Your task to perform on an android device: turn on priority inbox in the gmail app Image 0: 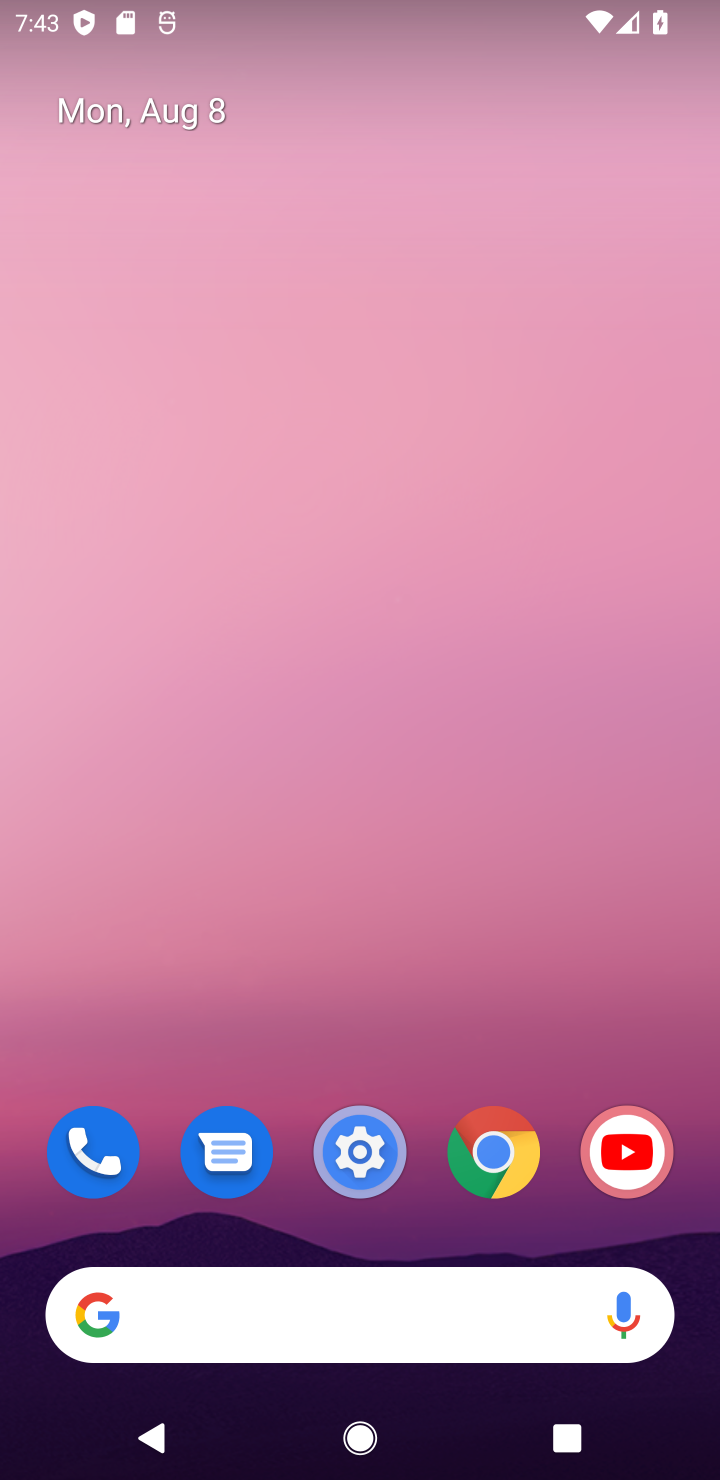
Step 0: drag from (328, 199) to (312, 63)
Your task to perform on an android device: turn on priority inbox in the gmail app Image 1: 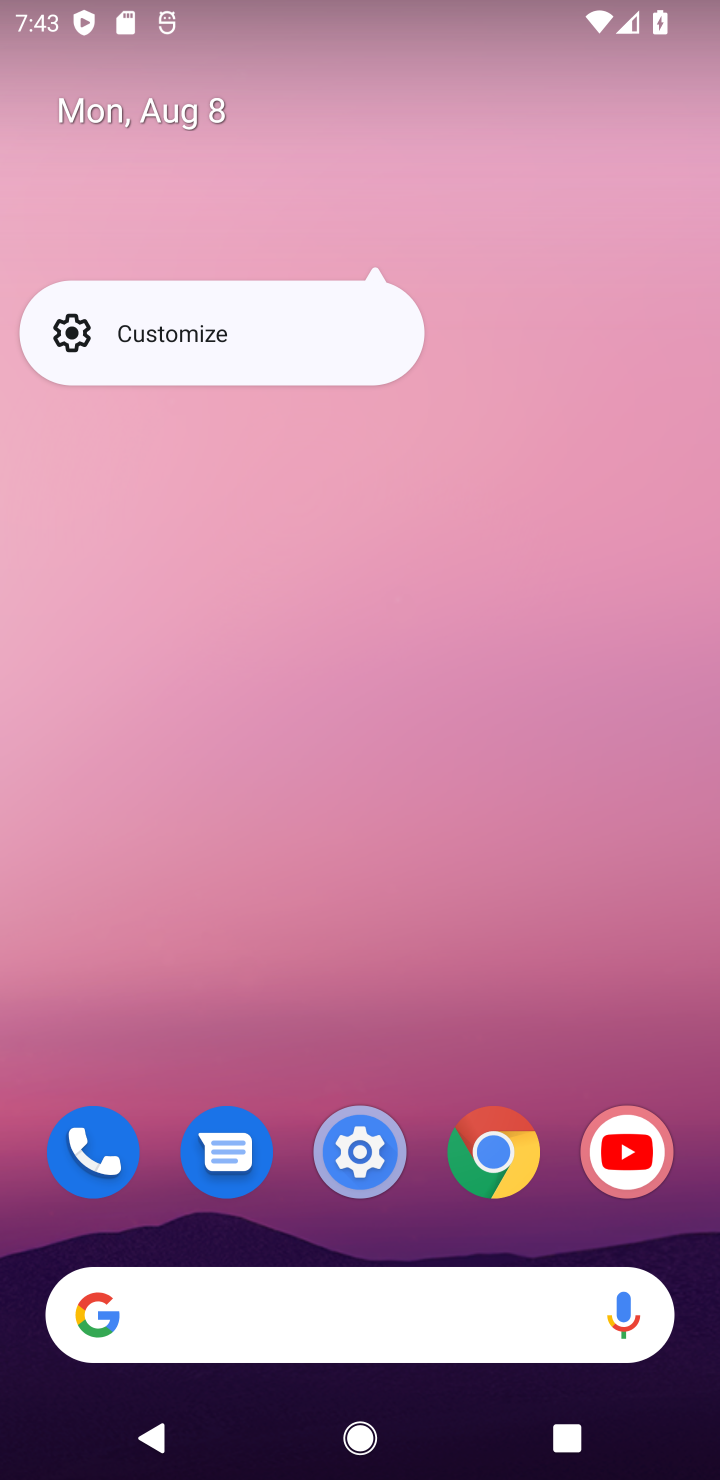
Step 1: drag from (415, 934) to (386, 316)
Your task to perform on an android device: turn on priority inbox in the gmail app Image 2: 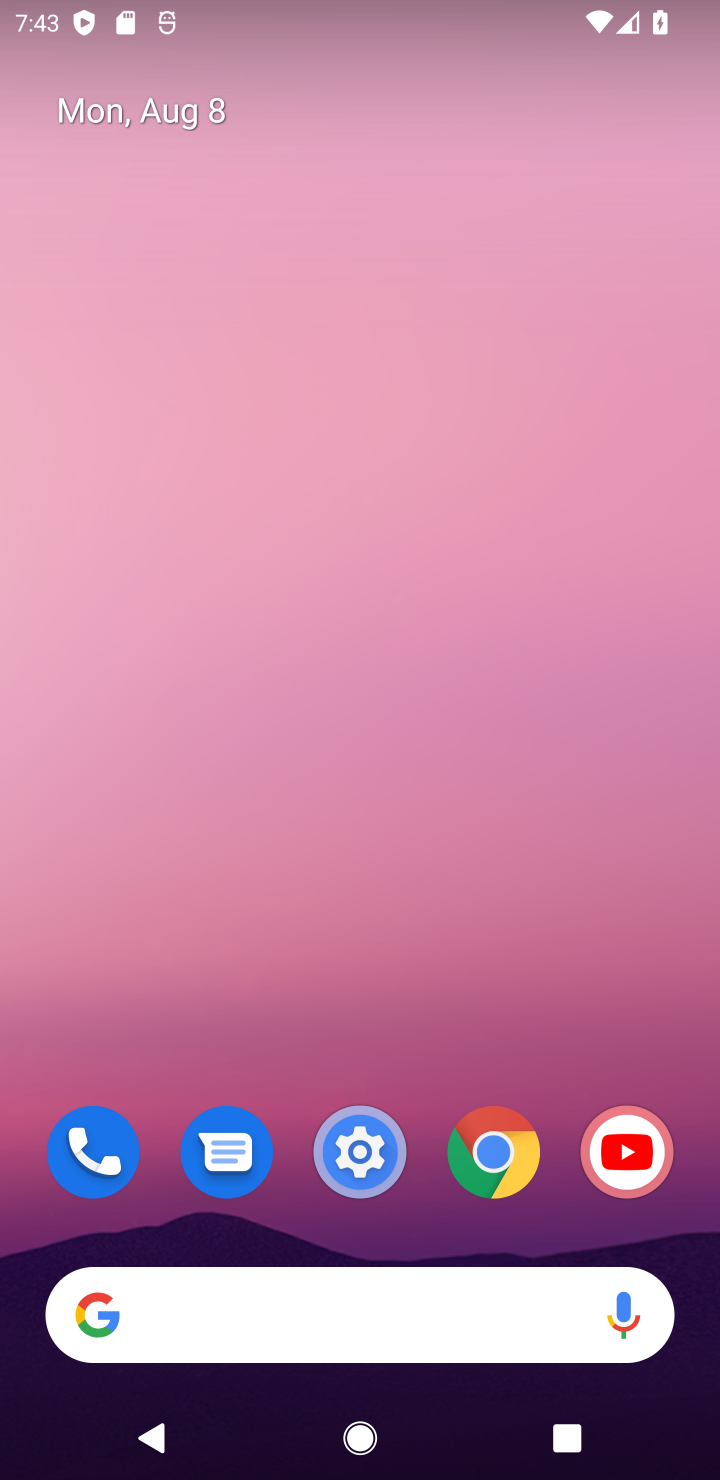
Step 2: drag from (473, 1420) to (414, 214)
Your task to perform on an android device: turn on priority inbox in the gmail app Image 3: 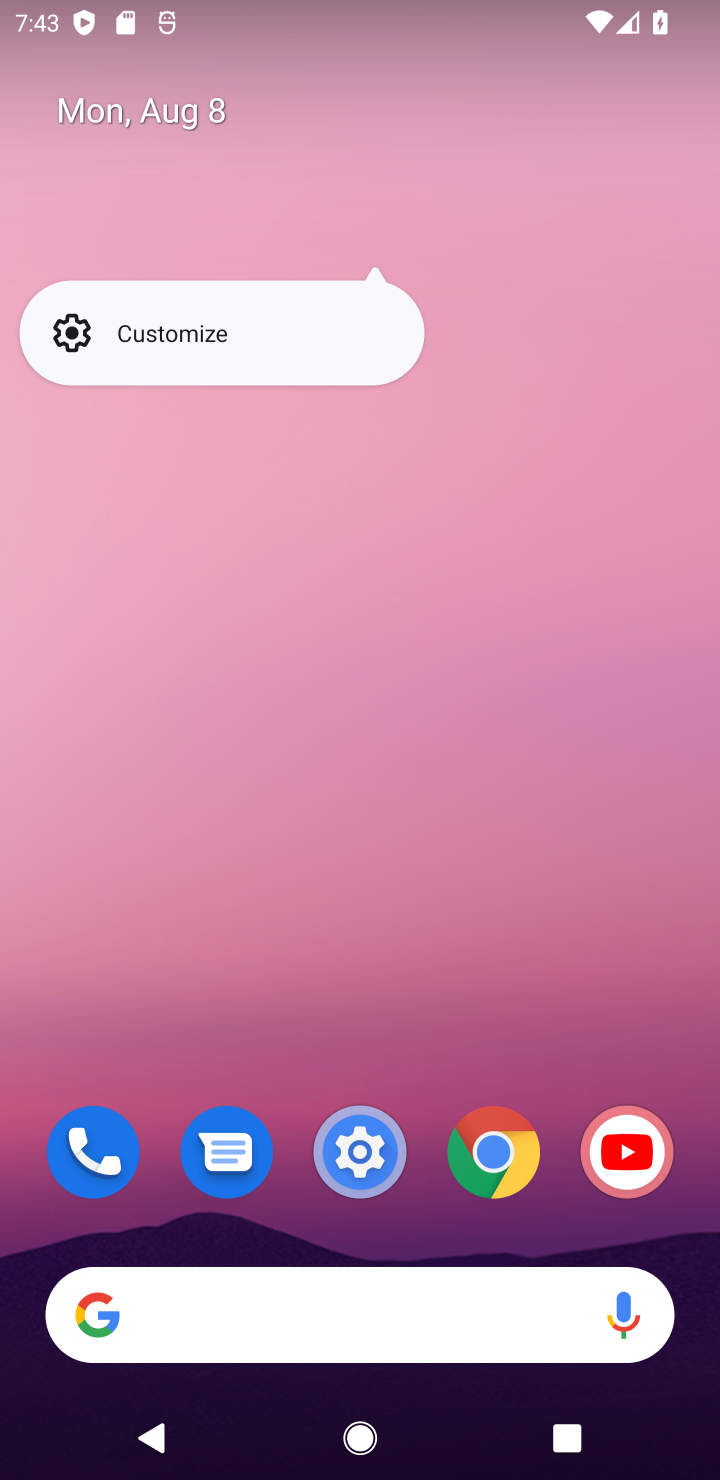
Step 3: click (473, 644)
Your task to perform on an android device: turn on priority inbox in the gmail app Image 4: 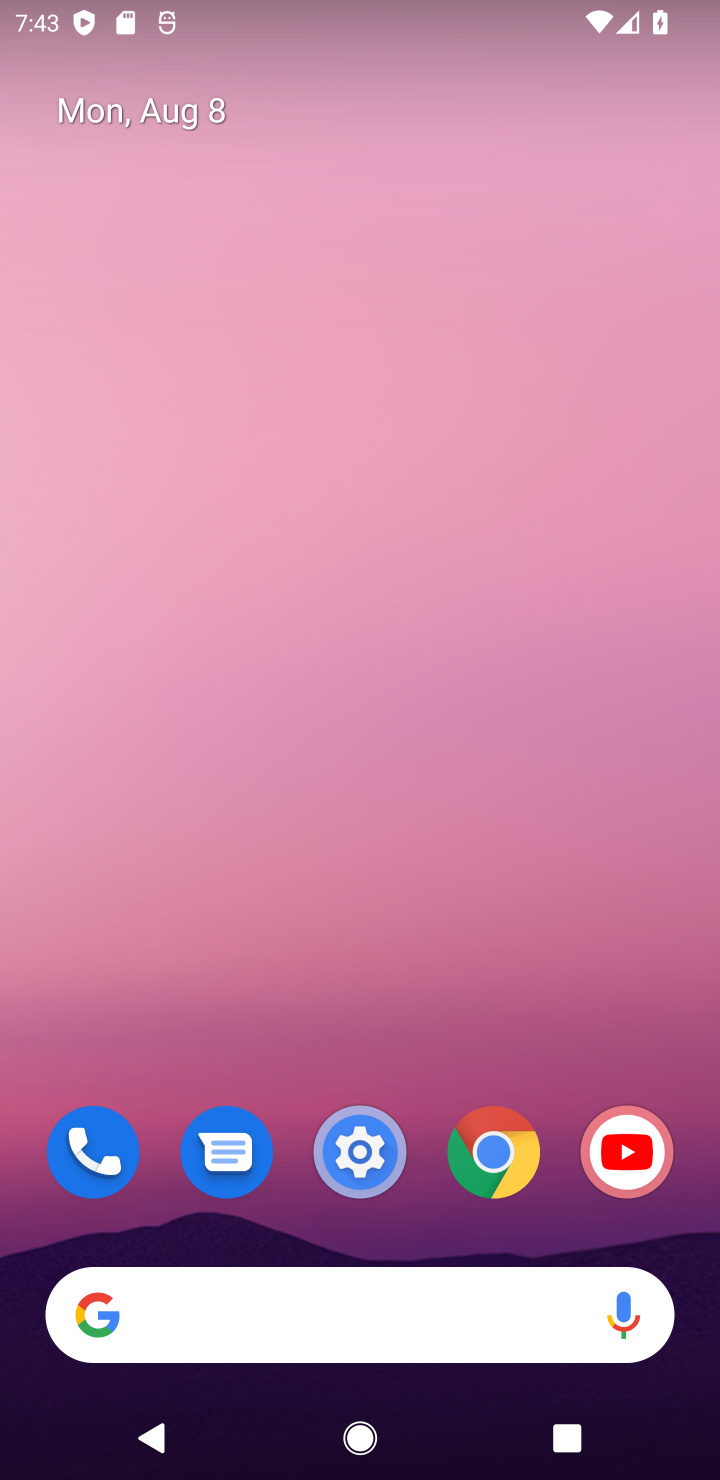
Step 4: drag from (427, 1253) to (317, 230)
Your task to perform on an android device: turn on priority inbox in the gmail app Image 5: 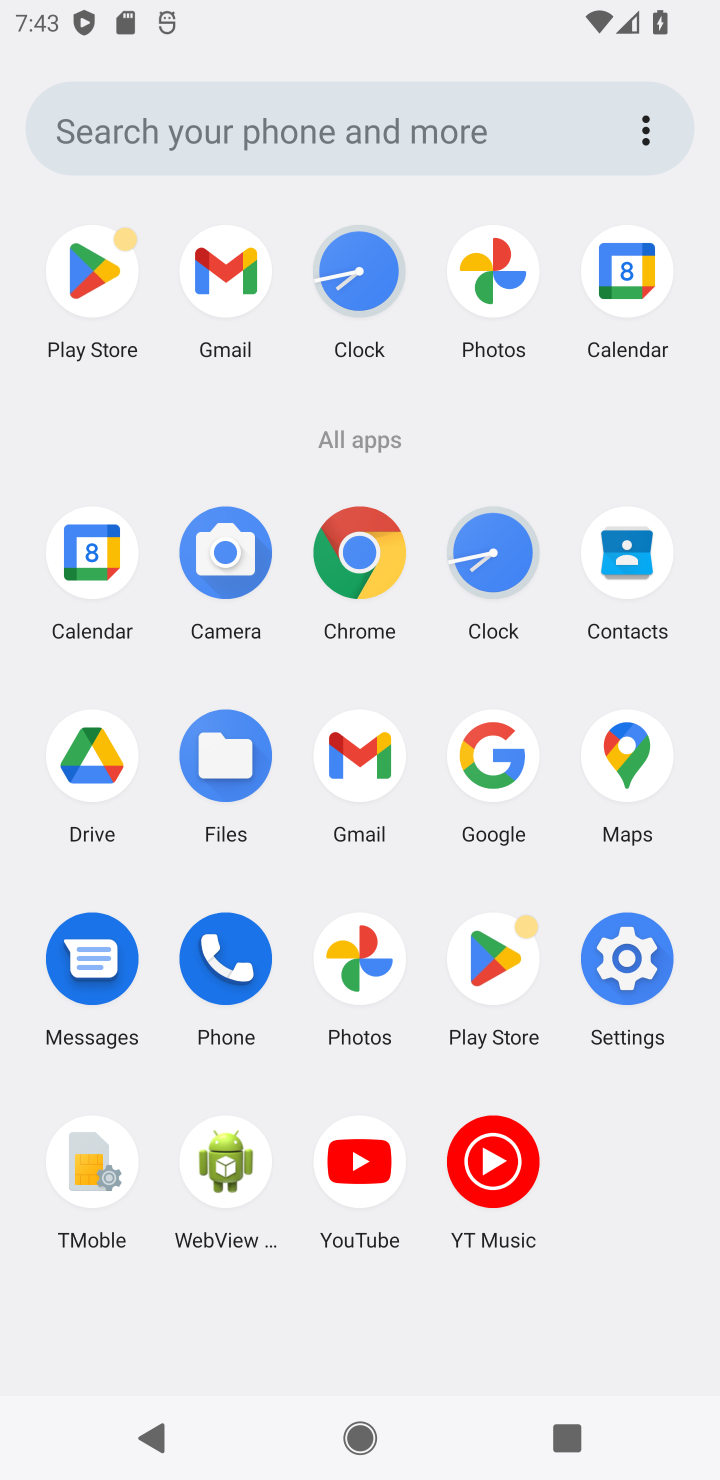
Step 5: click (243, 278)
Your task to perform on an android device: turn on priority inbox in the gmail app Image 6: 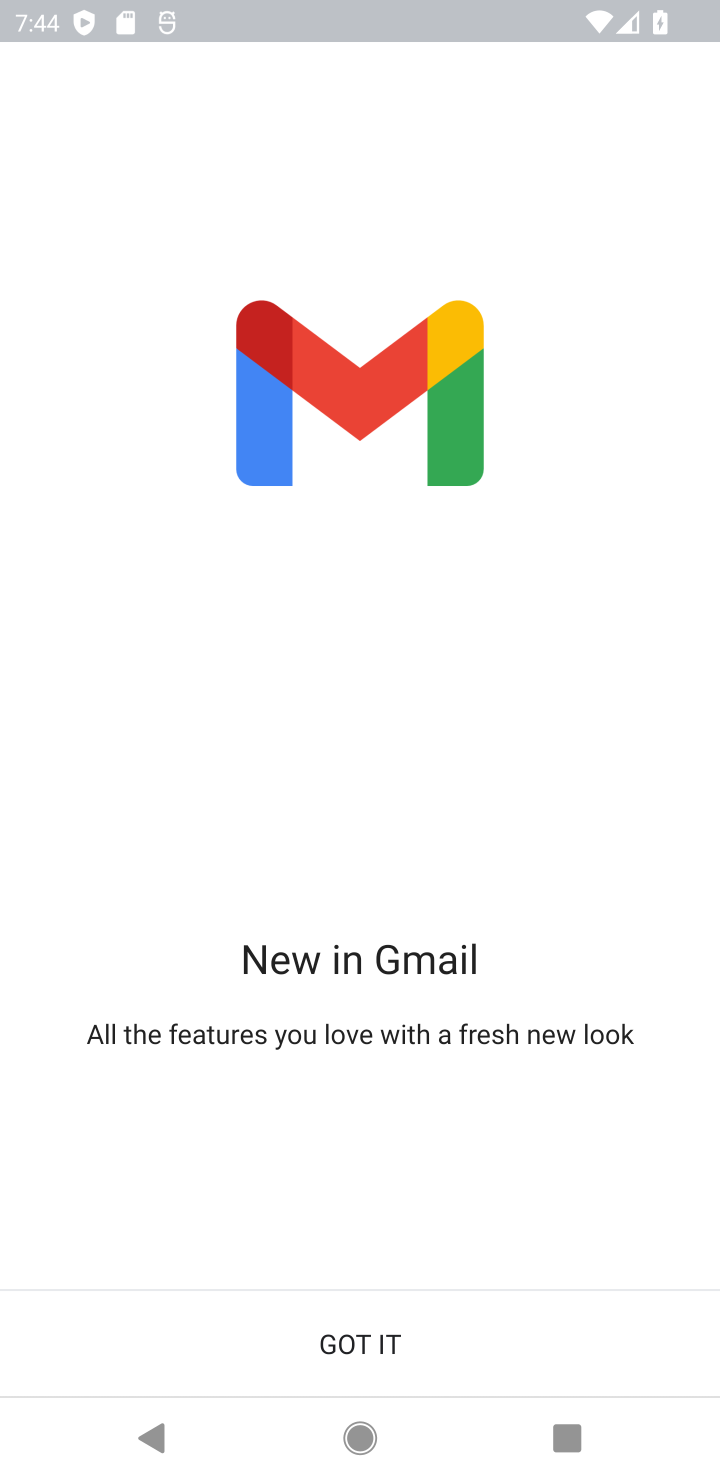
Step 6: click (380, 1350)
Your task to perform on an android device: turn on priority inbox in the gmail app Image 7: 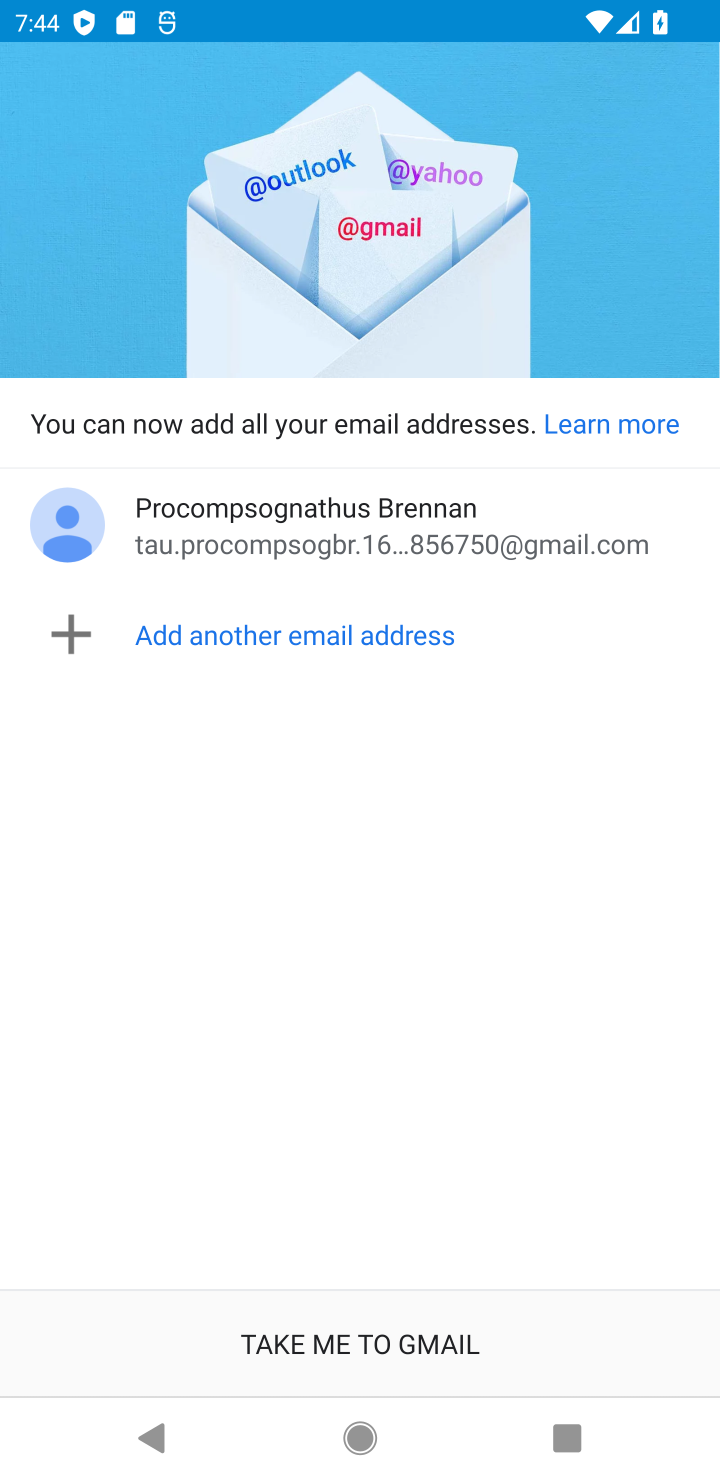
Step 7: click (369, 1338)
Your task to perform on an android device: turn on priority inbox in the gmail app Image 8: 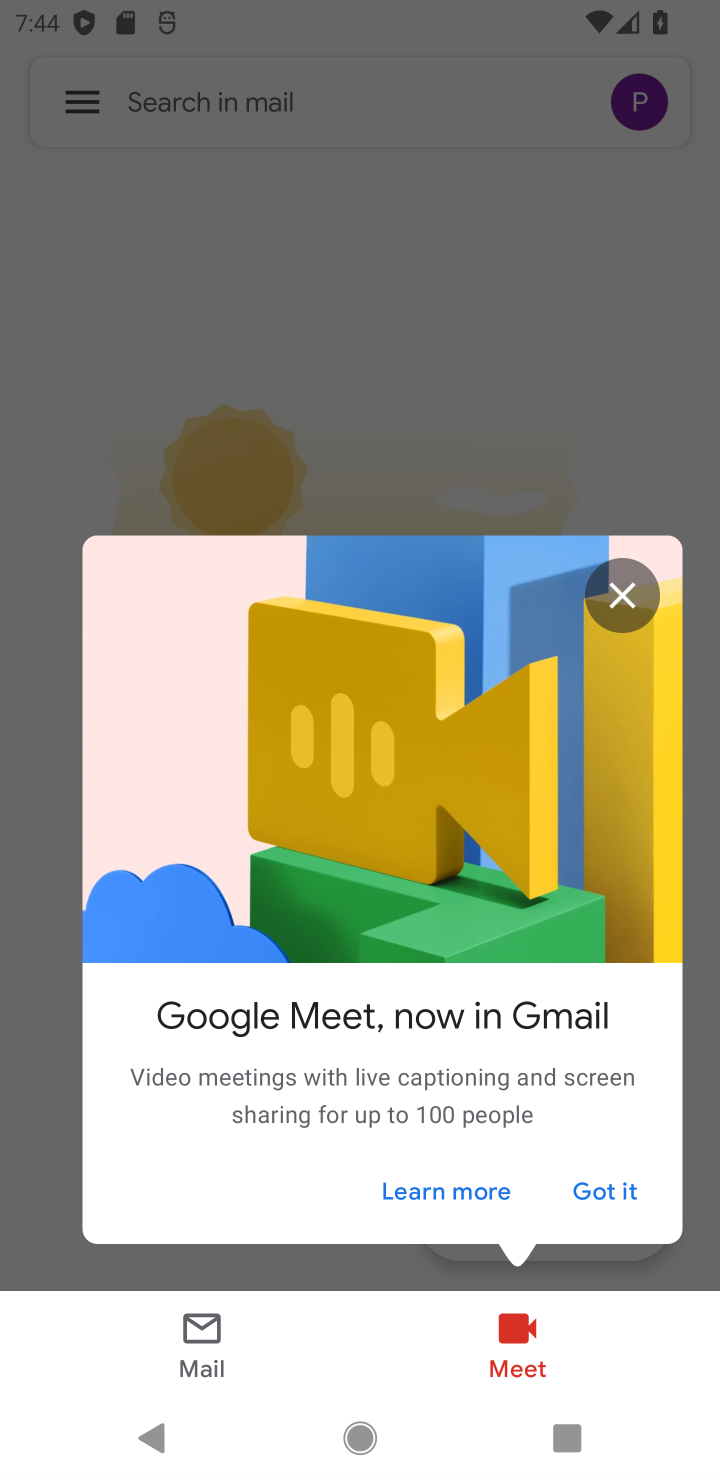
Step 8: click (591, 1192)
Your task to perform on an android device: turn on priority inbox in the gmail app Image 9: 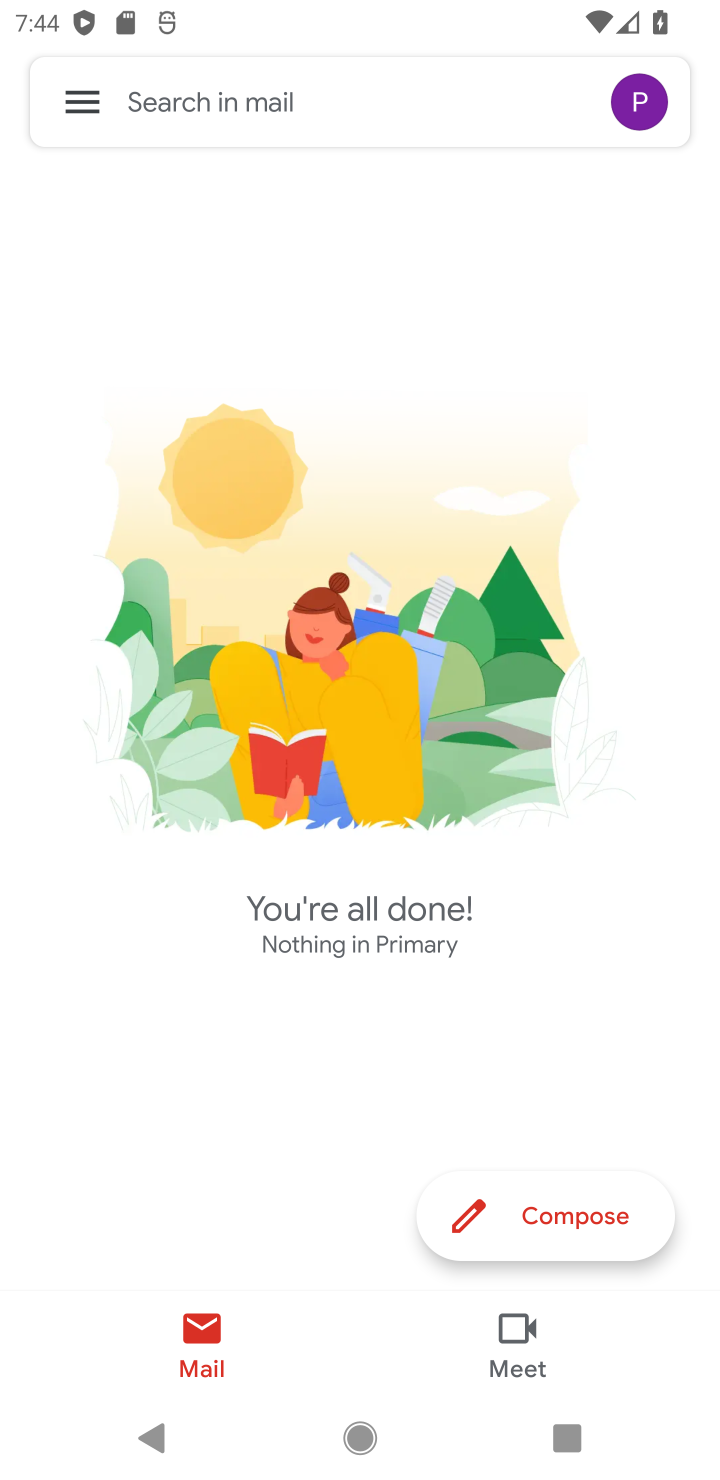
Step 9: click (74, 113)
Your task to perform on an android device: turn on priority inbox in the gmail app Image 10: 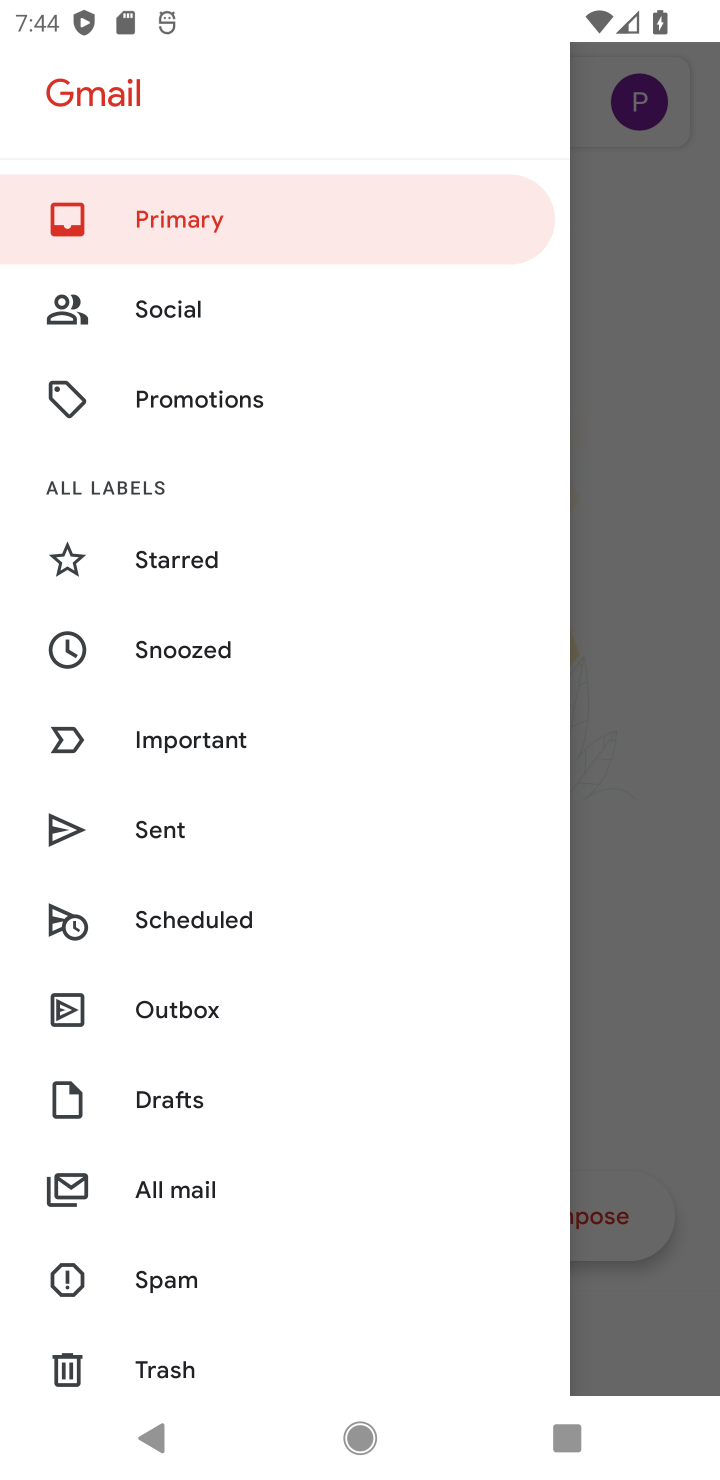
Step 10: drag from (333, 1253) to (326, 387)
Your task to perform on an android device: turn on priority inbox in the gmail app Image 11: 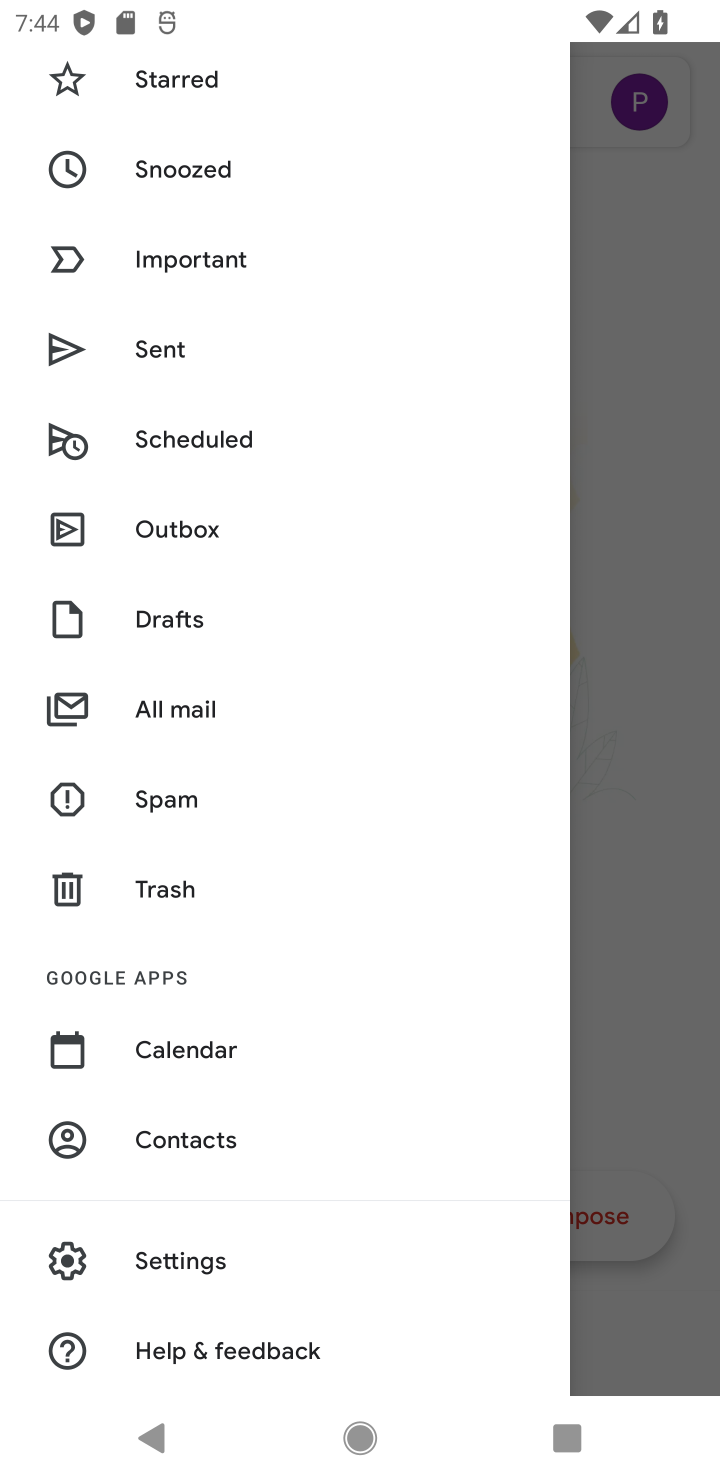
Step 11: click (169, 1248)
Your task to perform on an android device: turn on priority inbox in the gmail app Image 12: 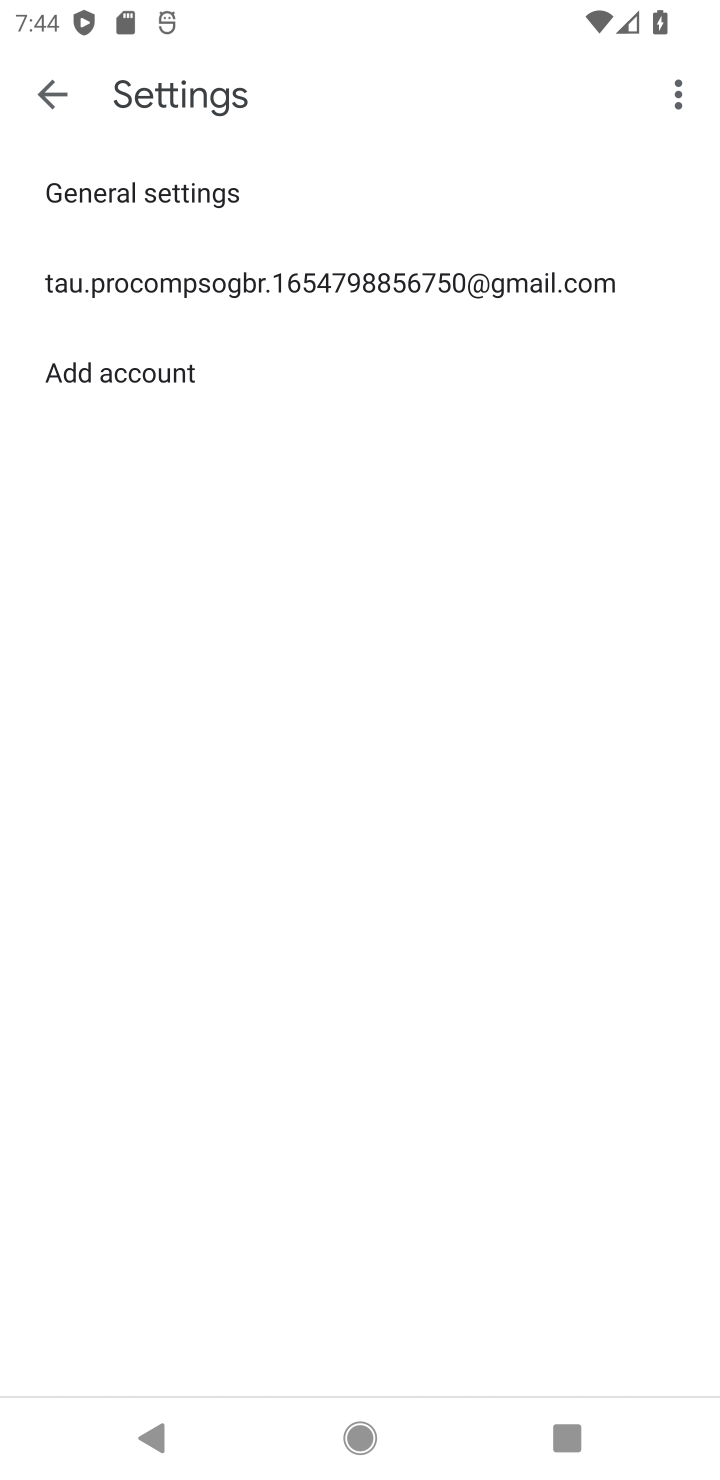
Step 12: click (155, 272)
Your task to perform on an android device: turn on priority inbox in the gmail app Image 13: 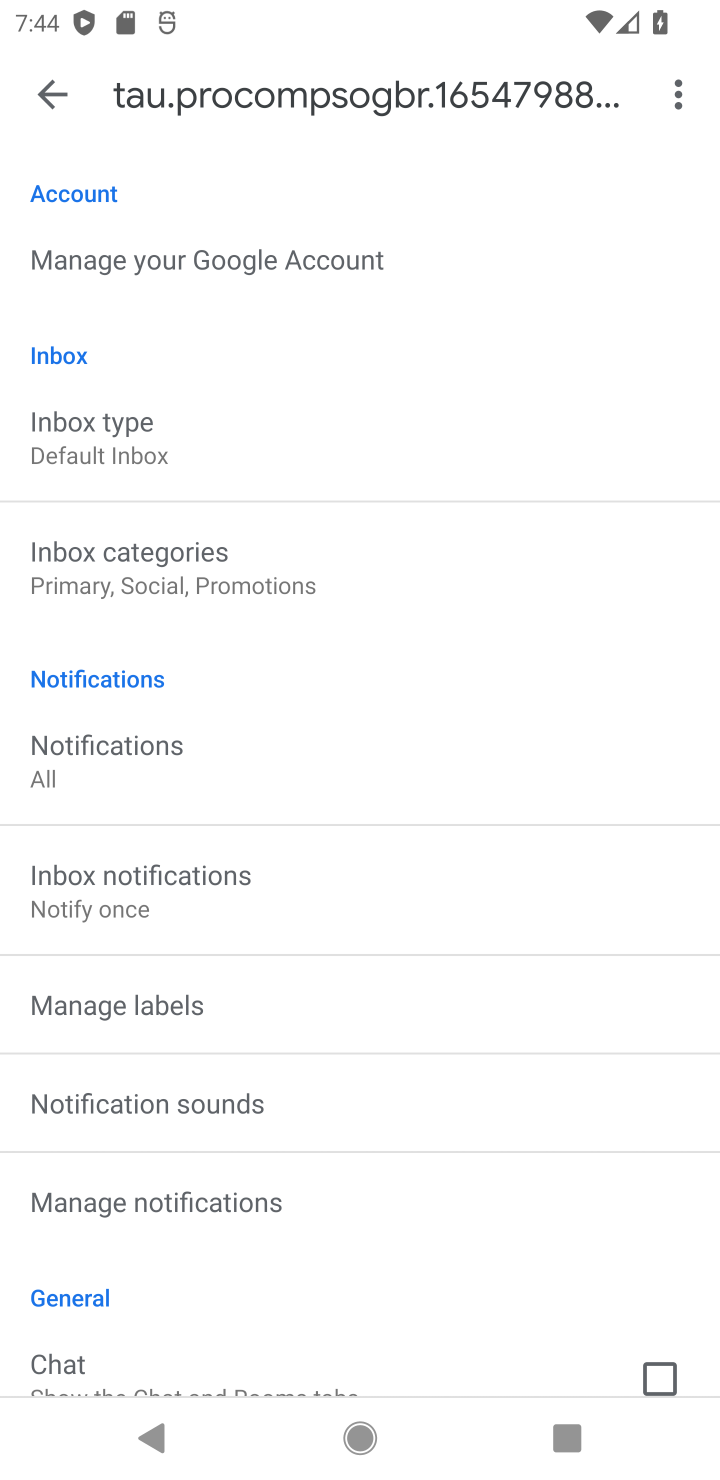
Step 13: click (115, 436)
Your task to perform on an android device: turn on priority inbox in the gmail app Image 14: 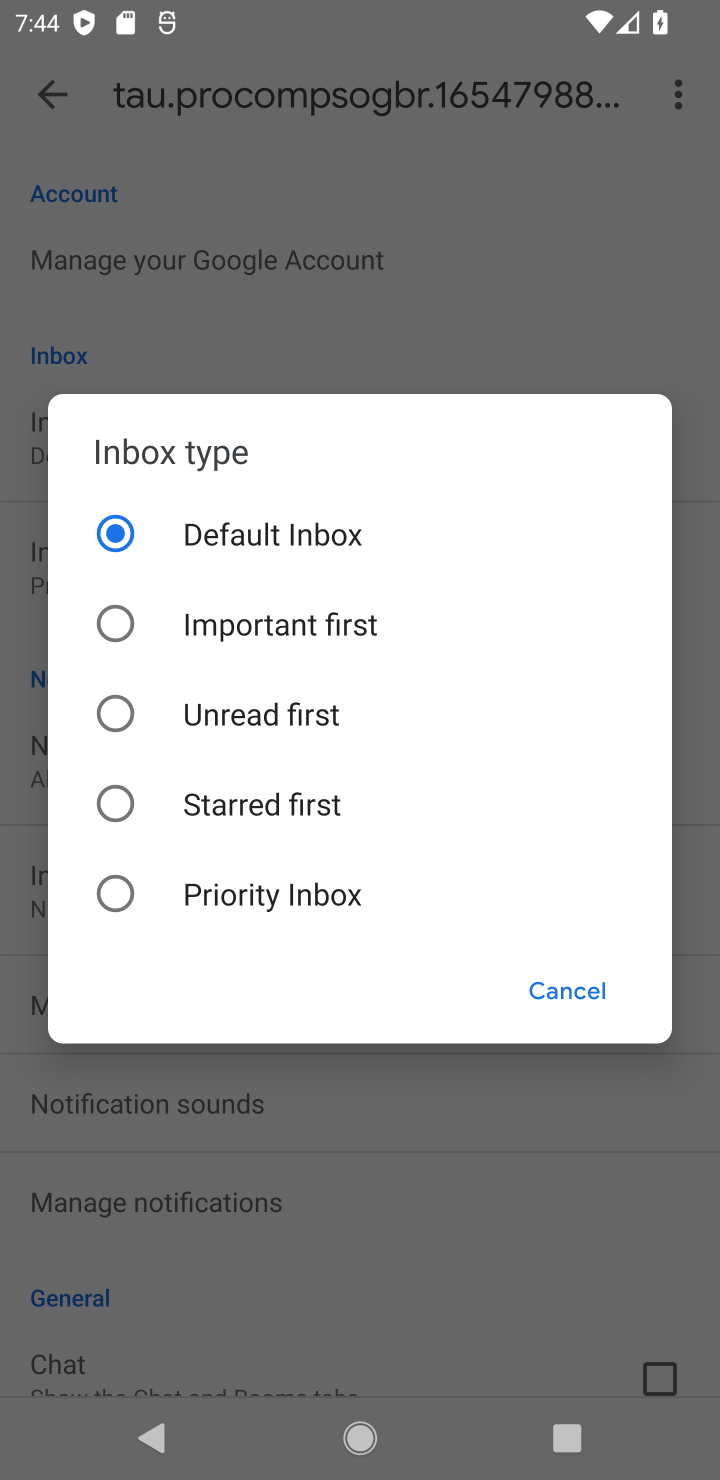
Step 14: click (112, 884)
Your task to perform on an android device: turn on priority inbox in the gmail app Image 15: 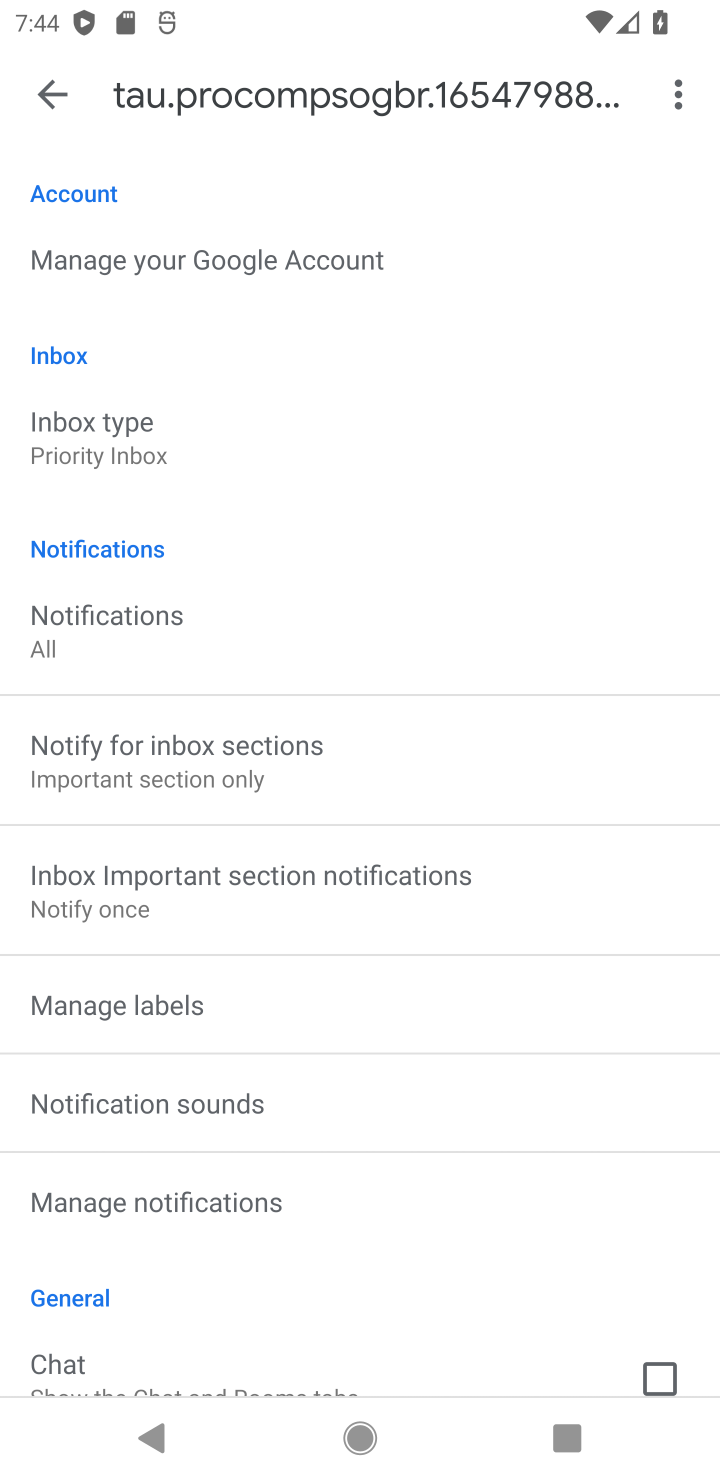
Step 15: task complete